Your task to perform on an android device: Show me the alarms in the clock app Image 0: 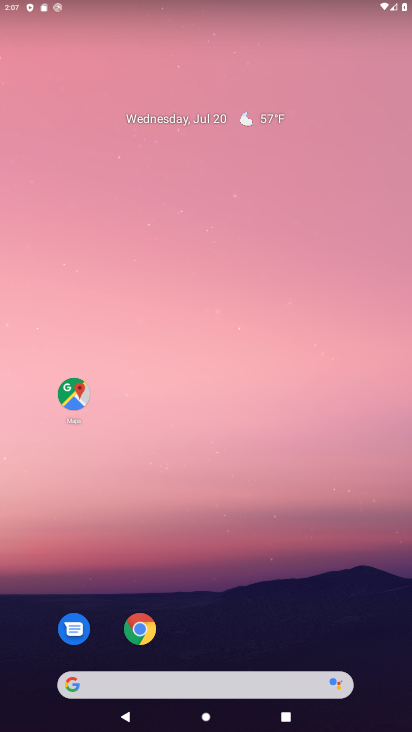
Step 0: drag from (196, 628) to (167, 240)
Your task to perform on an android device: Show me the alarms in the clock app Image 1: 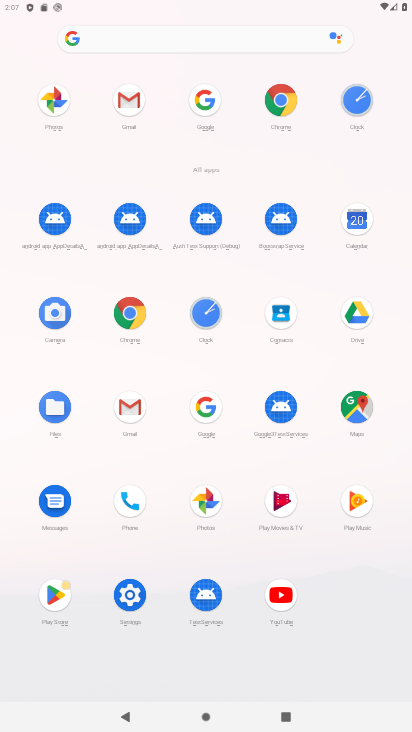
Step 1: click (216, 308)
Your task to perform on an android device: Show me the alarms in the clock app Image 2: 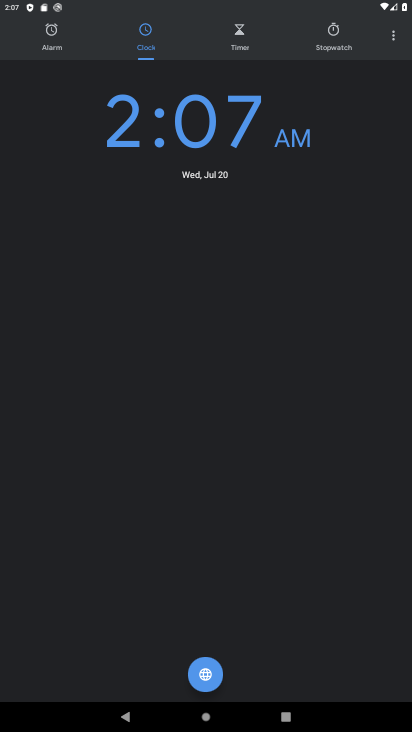
Step 2: click (67, 44)
Your task to perform on an android device: Show me the alarms in the clock app Image 3: 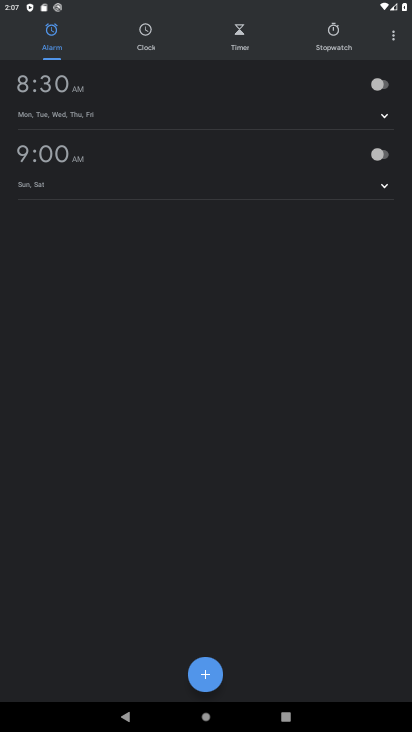
Step 3: task complete